Your task to perform on an android device: Clear the shopping cart on newegg. Add "razer nari" to the cart on newegg Image 0: 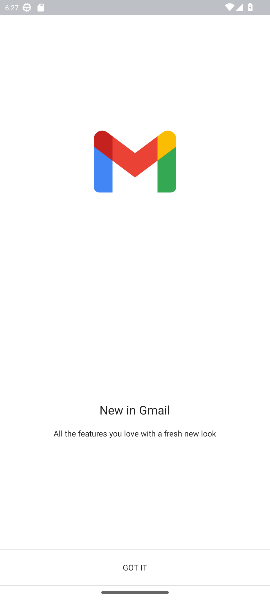
Step 0: press home button
Your task to perform on an android device: Clear the shopping cart on newegg. Add "razer nari" to the cart on newegg Image 1: 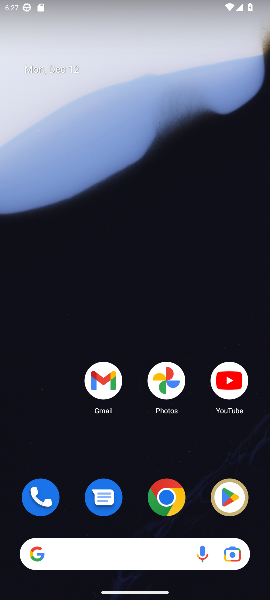
Step 1: drag from (61, 453) to (49, 28)
Your task to perform on an android device: Clear the shopping cart on newegg. Add "razer nari" to the cart on newegg Image 2: 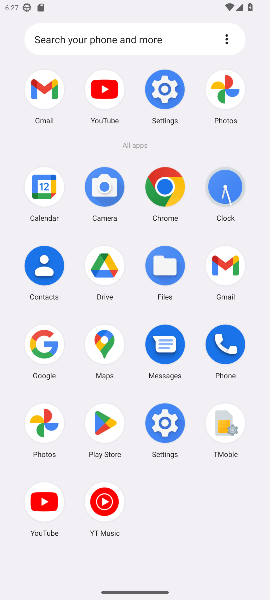
Step 2: click (27, 341)
Your task to perform on an android device: Clear the shopping cart on newegg. Add "razer nari" to the cart on newegg Image 3: 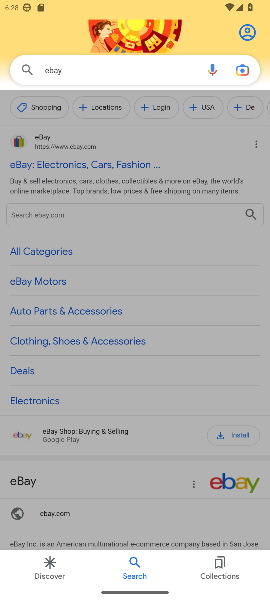
Step 3: click (104, 70)
Your task to perform on an android device: Clear the shopping cart on newegg. Add "razer nari" to the cart on newegg Image 4: 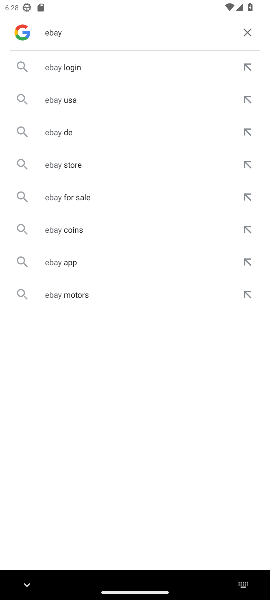
Step 4: press back button
Your task to perform on an android device: Clear the shopping cart on newegg. Add "razer nari" to the cart on newegg Image 5: 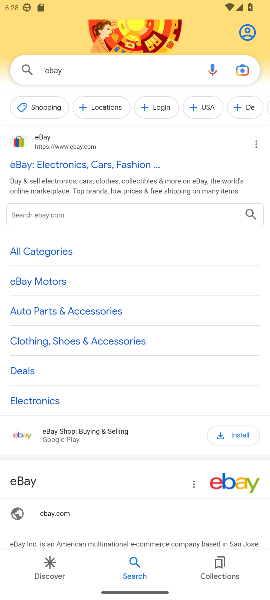
Step 5: click (83, 76)
Your task to perform on an android device: Clear the shopping cart on newegg. Add "razer nari" to the cart on newegg Image 6: 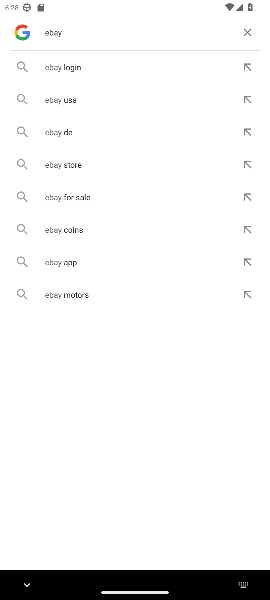
Step 6: click (239, 30)
Your task to perform on an android device: Clear the shopping cart on newegg. Add "razer nari" to the cart on newegg Image 7: 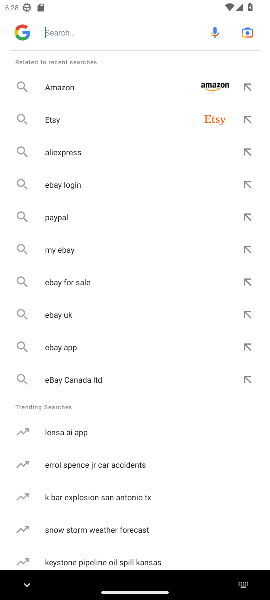
Step 7: type "newegg"
Your task to perform on an android device: Clear the shopping cart on newegg. Add "razer nari" to the cart on newegg Image 8: 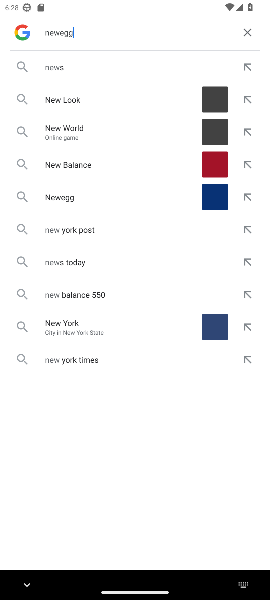
Step 8: press enter
Your task to perform on an android device: Clear the shopping cart on newegg. Add "razer nari" to the cart on newegg Image 9: 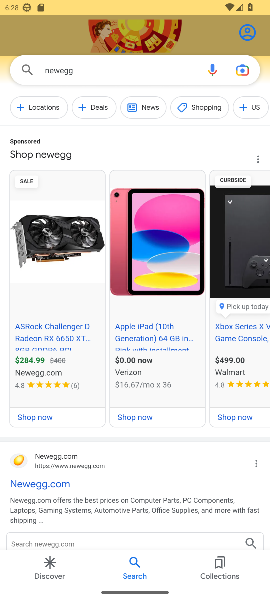
Step 9: drag from (121, 480) to (117, 151)
Your task to perform on an android device: Clear the shopping cart on newegg. Add "razer nari" to the cart on newegg Image 10: 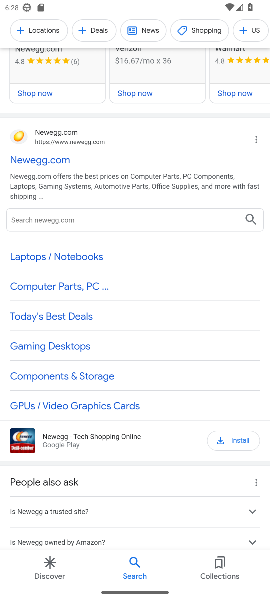
Step 10: click (33, 166)
Your task to perform on an android device: Clear the shopping cart on newegg. Add "razer nari" to the cart on newegg Image 11: 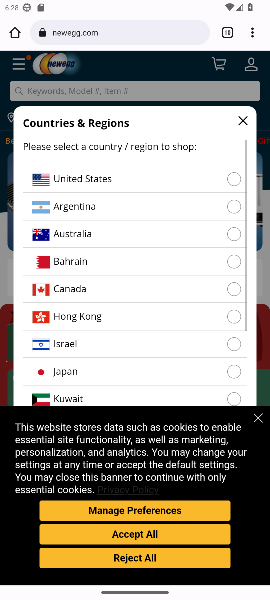
Step 11: click (257, 420)
Your task to perform on an android device: Clear the shopping cart on newegg. Add "razer nari" to the cart on newegg Image 12: 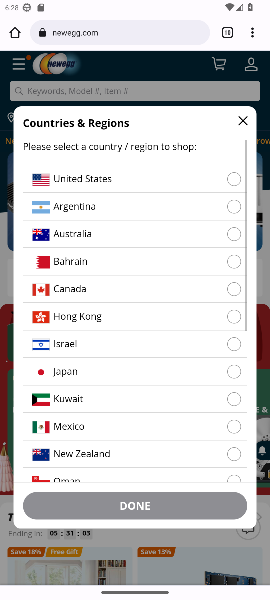
Step 12: click (239, 121)
Your task to perform on an android device: Clear the shopping cart on newegg. Add "razer nari" to the cart on newegg Image 13: 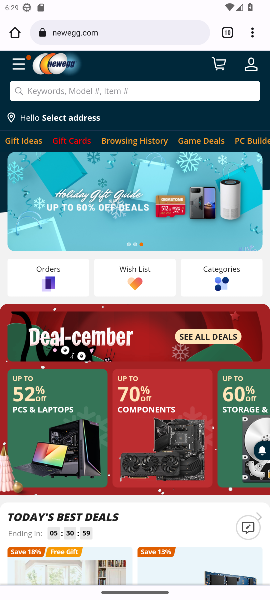
Step 13: click (220, 58)
Your task to perform on an android device: Clear the shopping cart on newegg. Add "razer nari" to the cart on newegg Image 14: 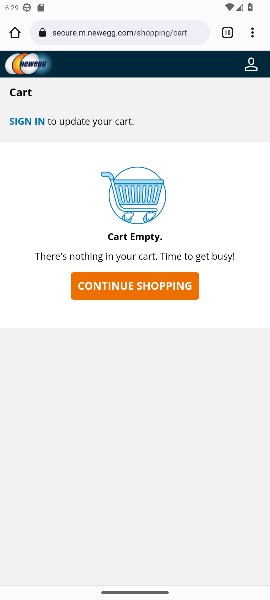
Step 14: press back button
Your task to perform on an android device: Clear the shopping cart on newegg. Add "razer nari" to the cart on newegg Image 15: 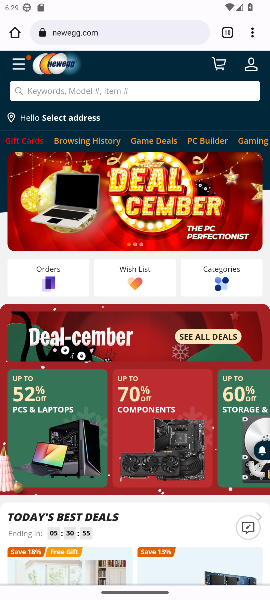
Step 15: click (83, 86)
Your task to perform on an android device: Clear the shopping cart on newegg. Add "razer nari" to the cart on newegg Image 16: 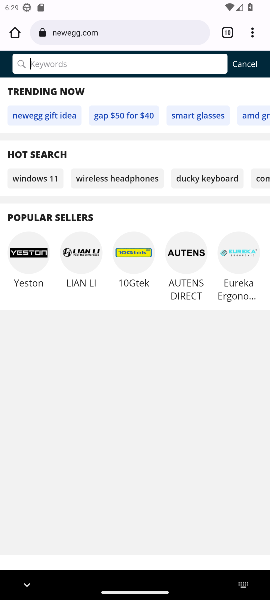
Step 16: type "razer nari"
Your task to perform on an android device: Clear the shopping cart on newegg. Add "razer nari" to the cart on newegg Image 17: 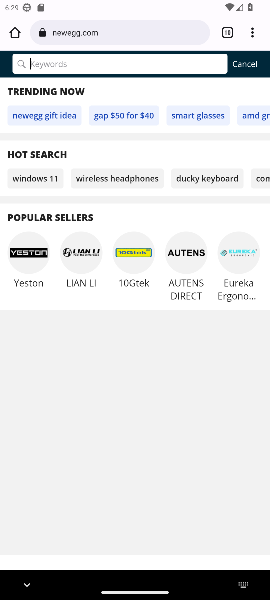
Step 17: press enter
Your task to perform on an android device: Clear the shopping cart on newegg. Add "razer nari" to the cart on newegg Image 18: 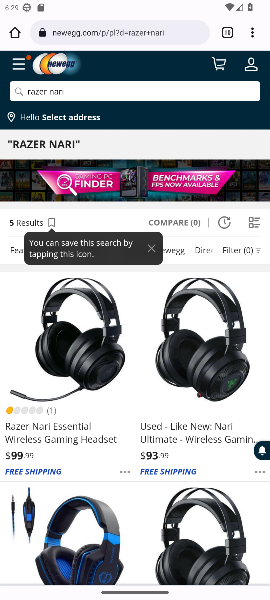
Step 18: click (48, 433)
Your task to perform on an android device: Clear the shopping cart on newegg. Add "razer nari" to the cart on newegg Image 19: 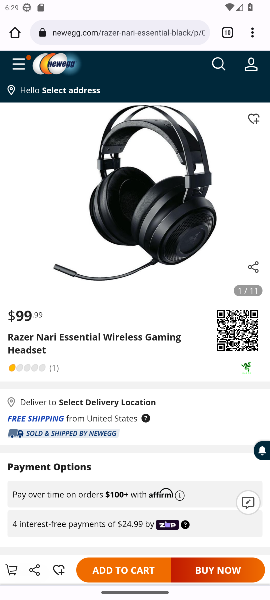
Step 19: click (115, 571)
Your task to perform on an android device: Clear the shopping cart on newegg. Add "razer nari" to the cart on newegg Image 20: 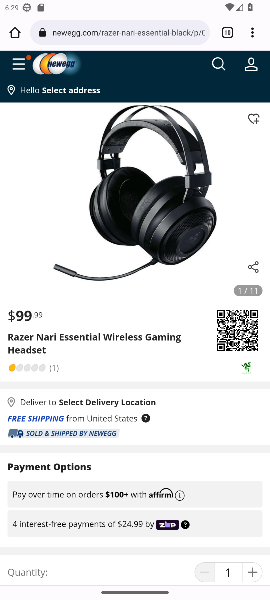
Step 20: drag from (121, 476) to (124, 175)
Your task to perform on an android device: Clear the shopping cart on newegg. Add "razer nari" to the cart on newegg Image 21: 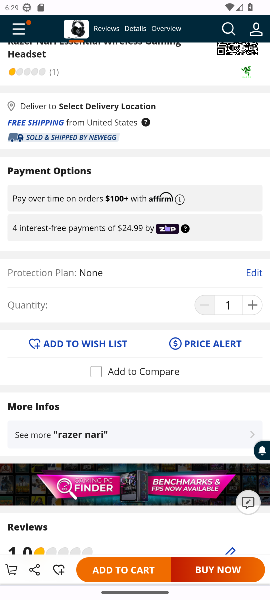
Step 21: click (121, 574)
Your task to perform on an android device: Clear the shopping cart on newegg. Add "razer nari" to the cart on newegg Image 22: 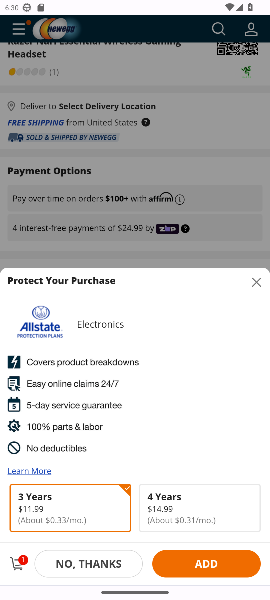
Step 22: task complete